Your task to perform on an android device: open chrome and create a bookmark for the current page Image 0: 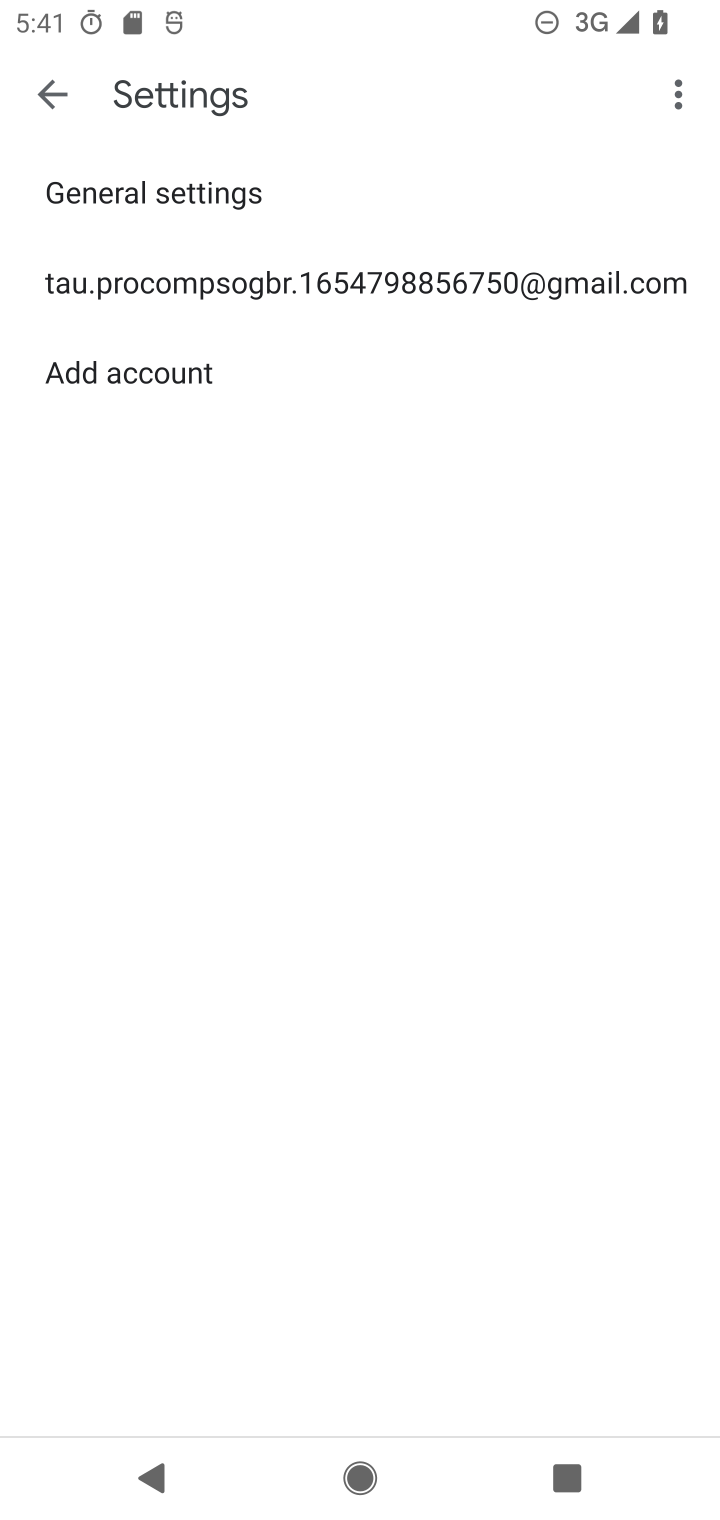
Step 0: press back button
Your task to perform on an android device: open chrome and create a bookmark for the current page Image 1: 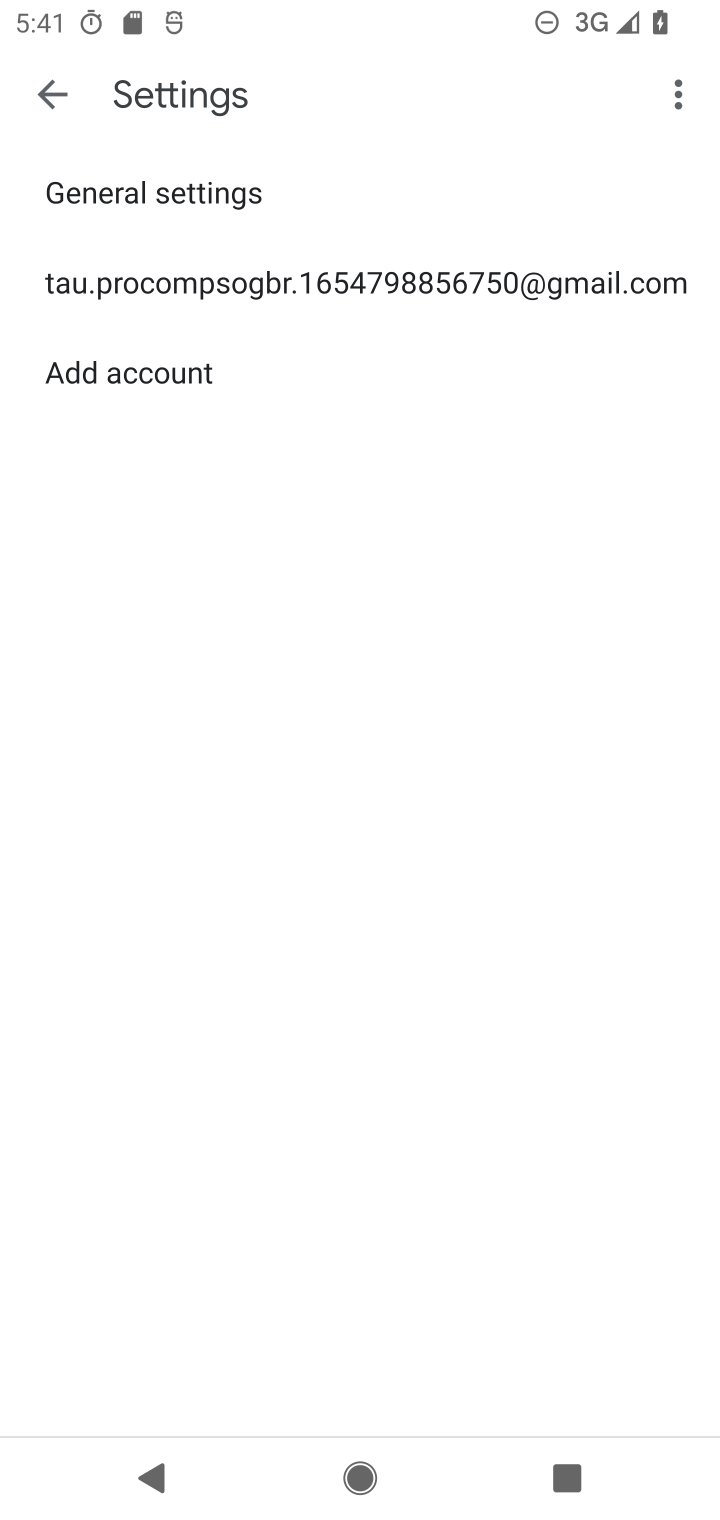
Step 1: press back button
Your task to perform on an android device: open chrome and create a bookmark for the current page Image 2: 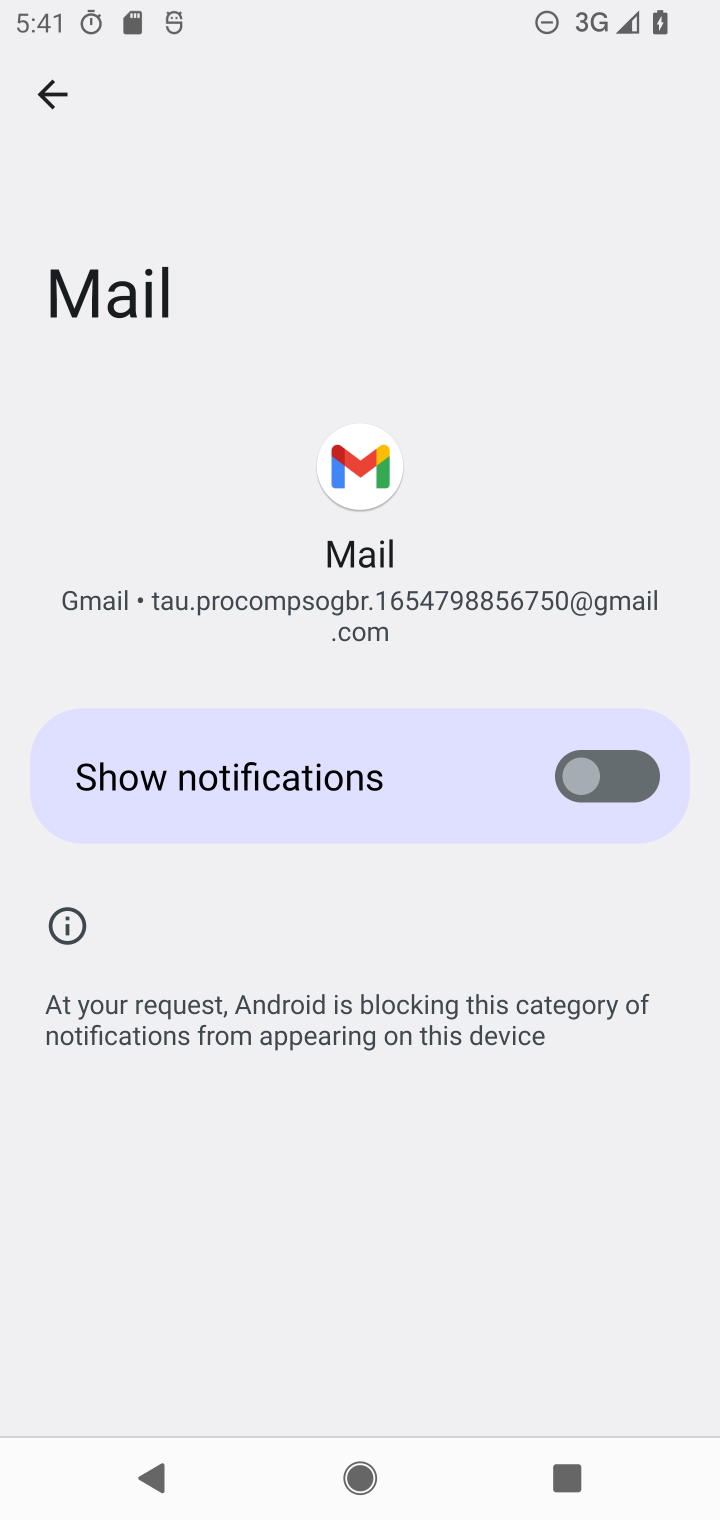
Step 2: press back button
Your task to perform on an android device: open chrome and create a bookmark for the current page Image 3: 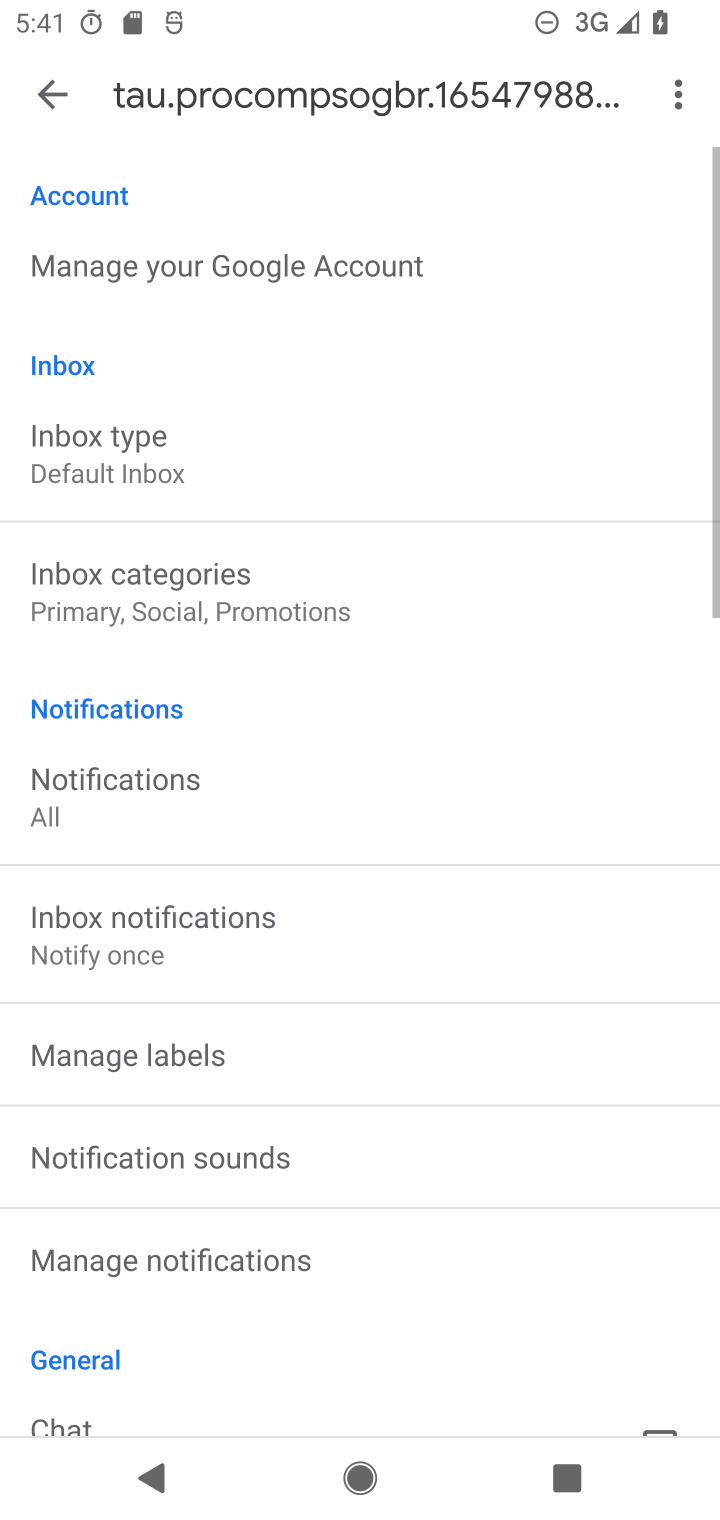
Step 3: press back button
Your task to perform on an android device: open chrome and create a bookmark for the current page Image 4: 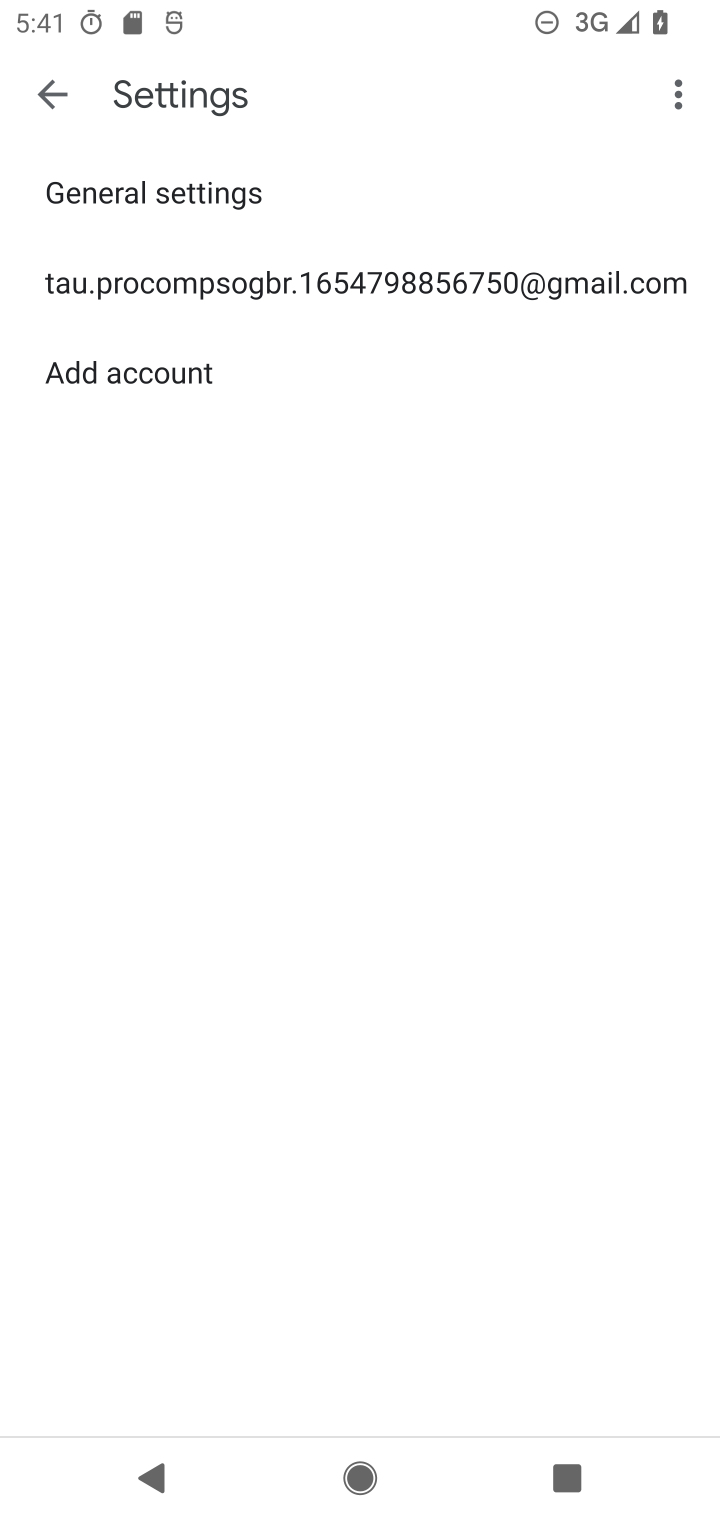
Step 4: press back button
Your task to perform on an android device: open chrome and create a bookmark for the current page Image 5: 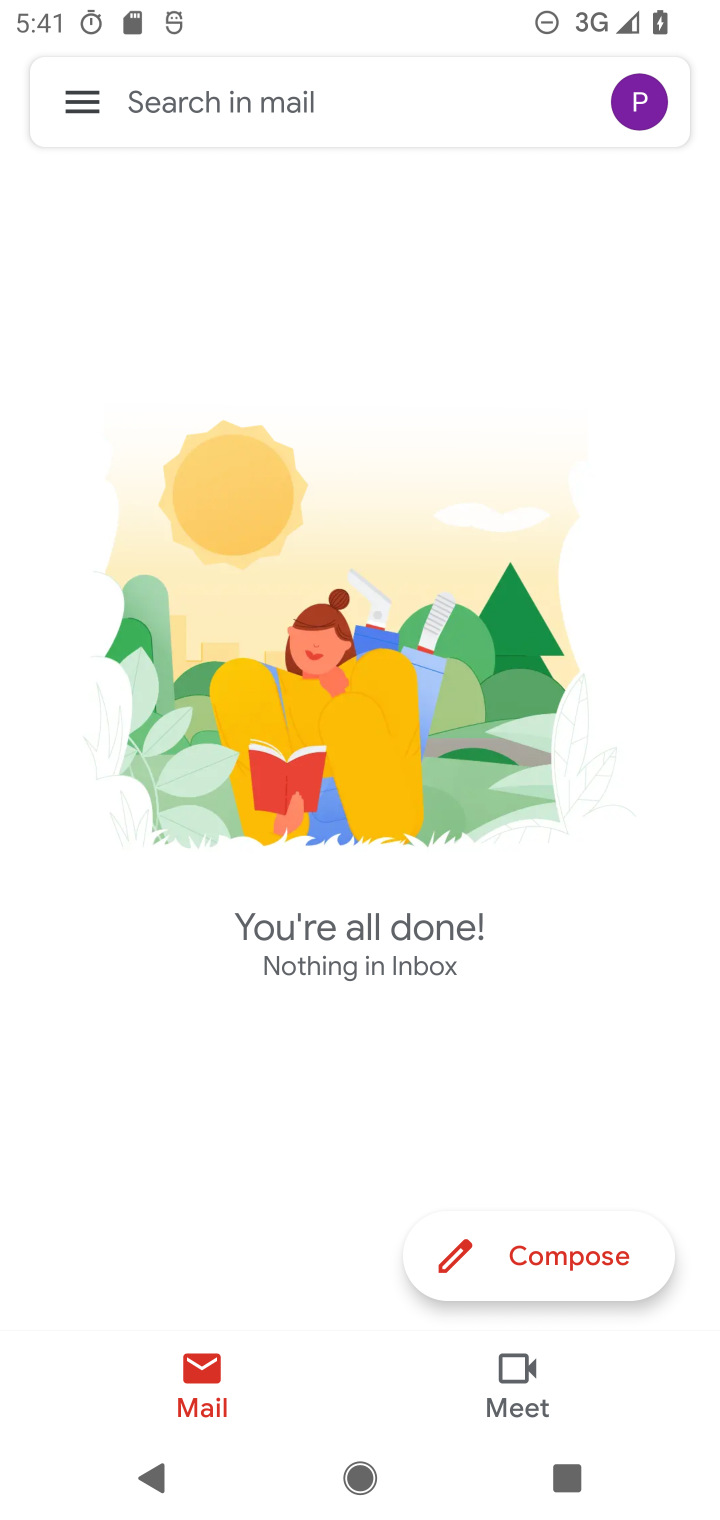
Step 5: press back button
Your task to perform on an android device: open chrome and create a bookmark for the current page Image 6: 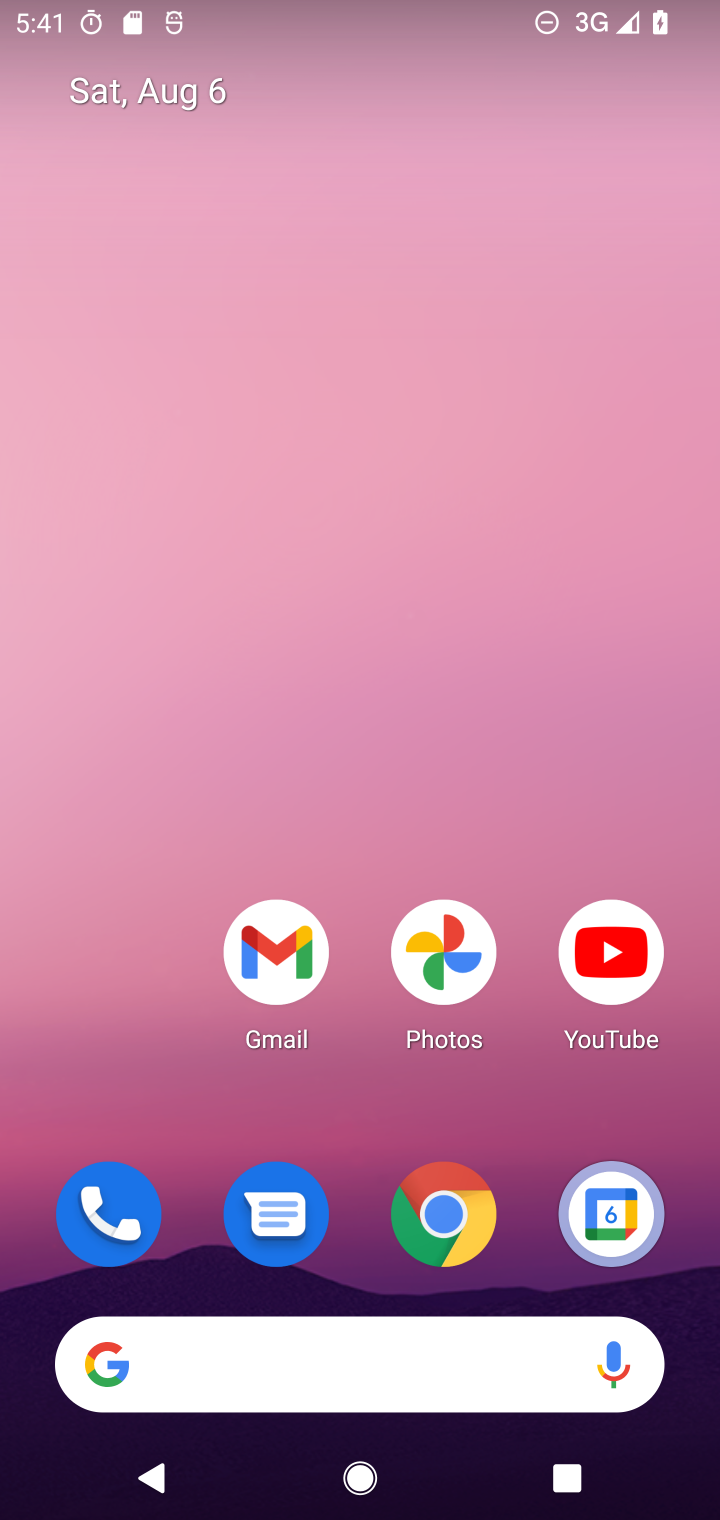
Step 6: click (442, 1225)
Your task to perform on an android device: open chrome and create a bookmark for the current page Image 7: 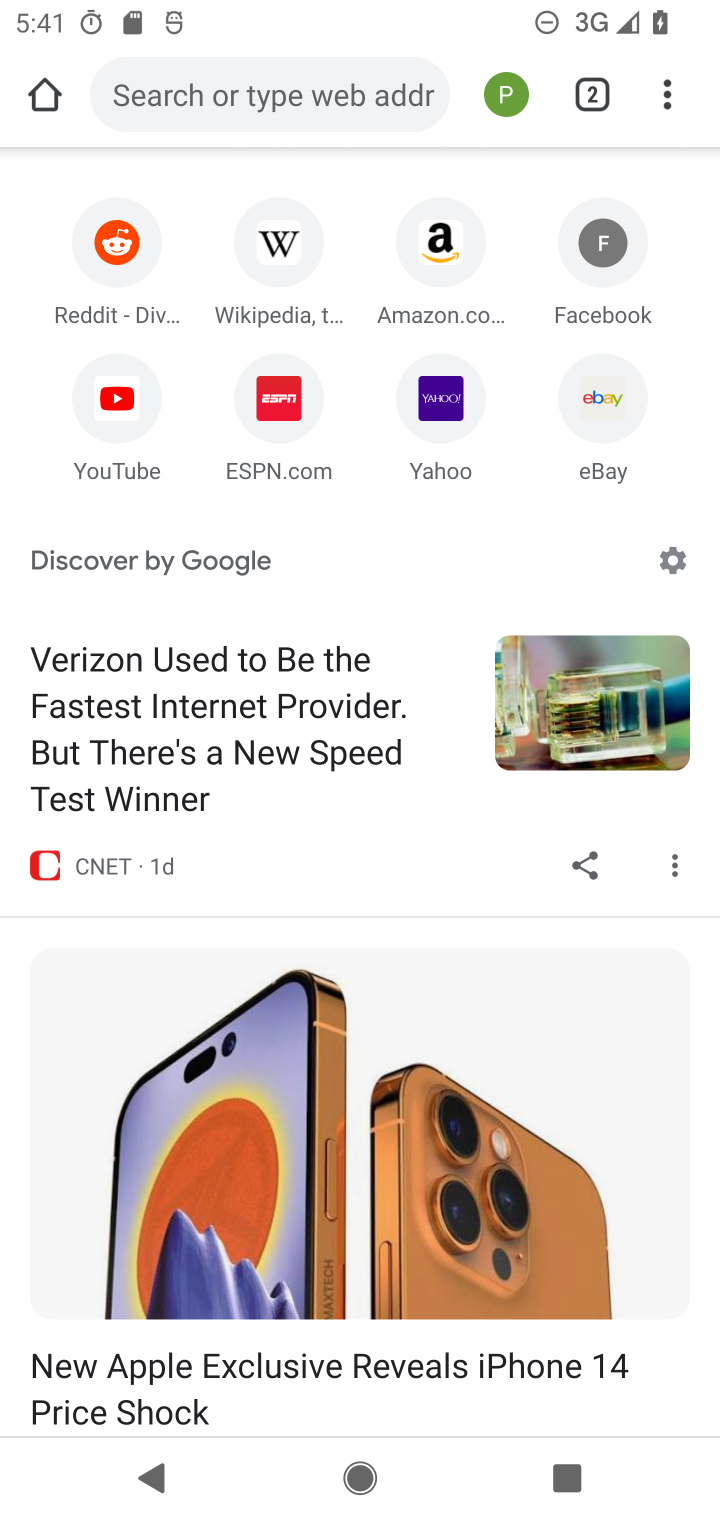
Step 7: click (661, 106)
Your task to perform on an android device: open chrome and create a bookmark for the current page Image 8: 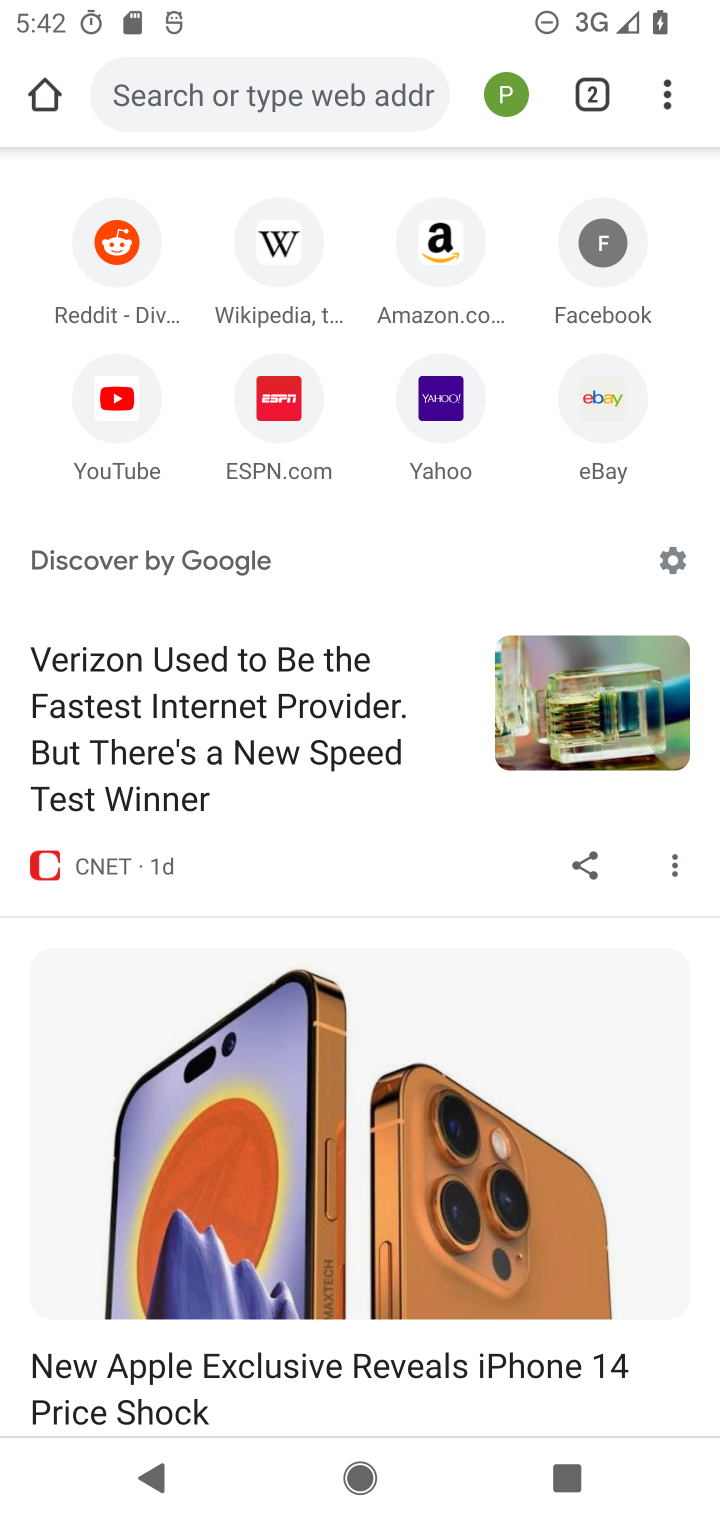
Step 8: click (666, 99)
Your task to perform on an android device: open chrome and create a bookmark for the current page Image 9: 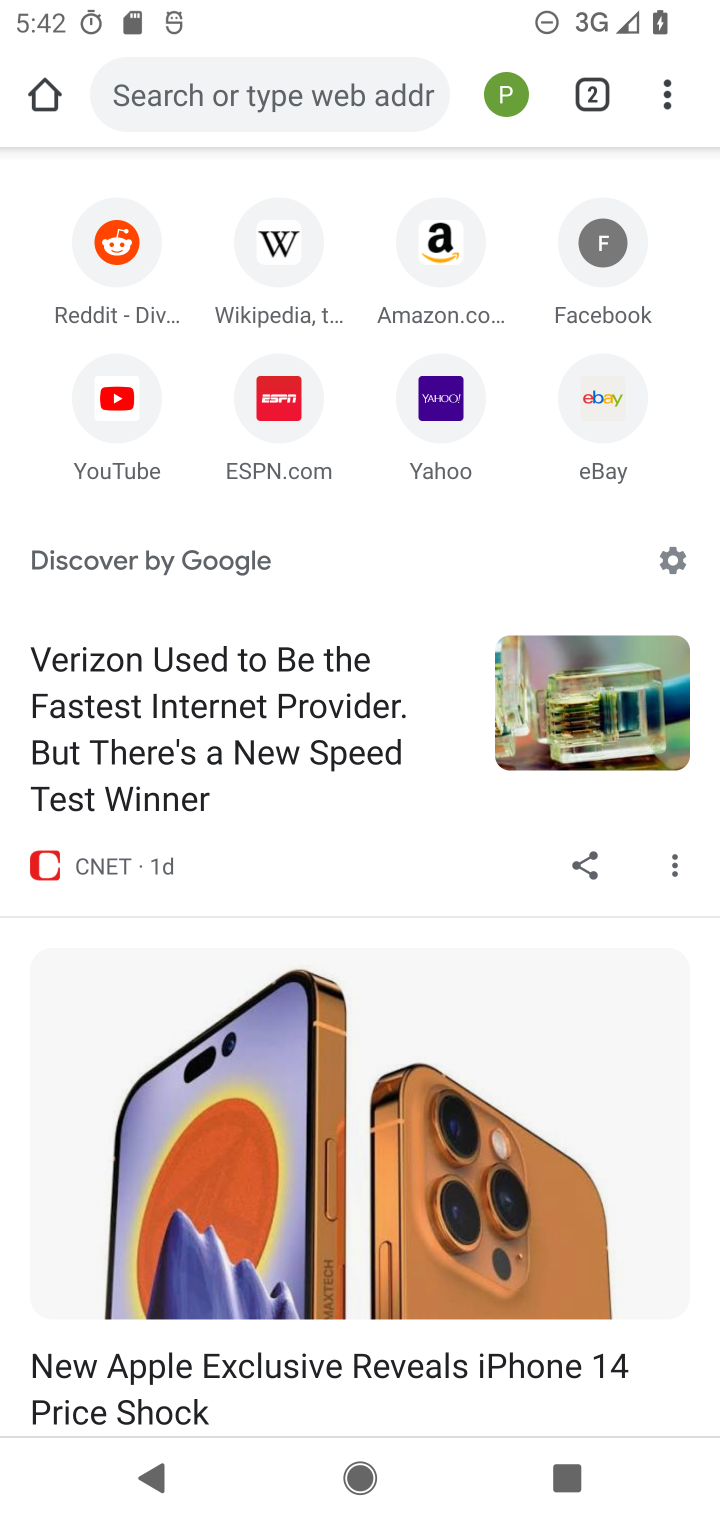
Step 9: click (666, 99)
Your task to perform on an android device: open chrome and create a bookmark for the current page Image 10: 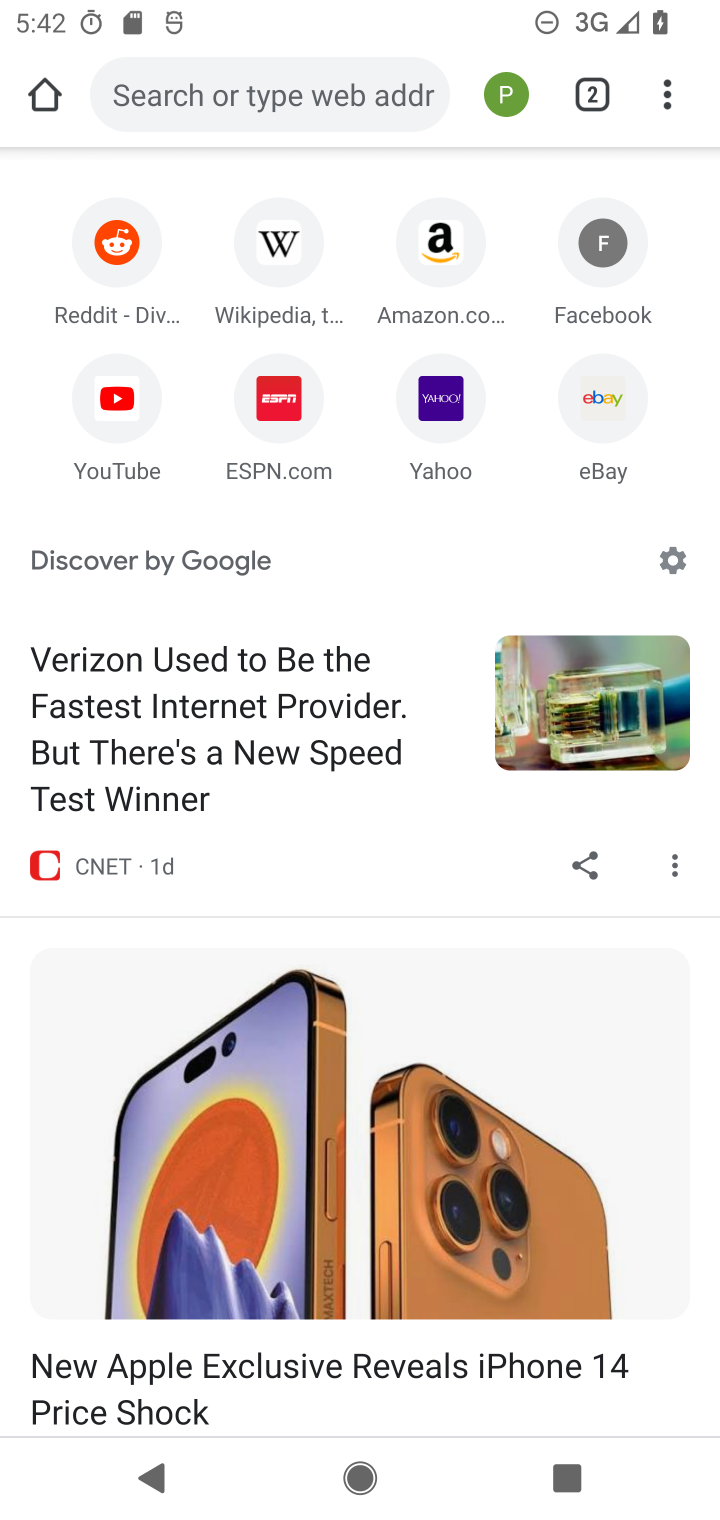
Step 10: click (664, 99)
Your task to perform on an android device: open chrome and create a bookmark for the current page Image 11: 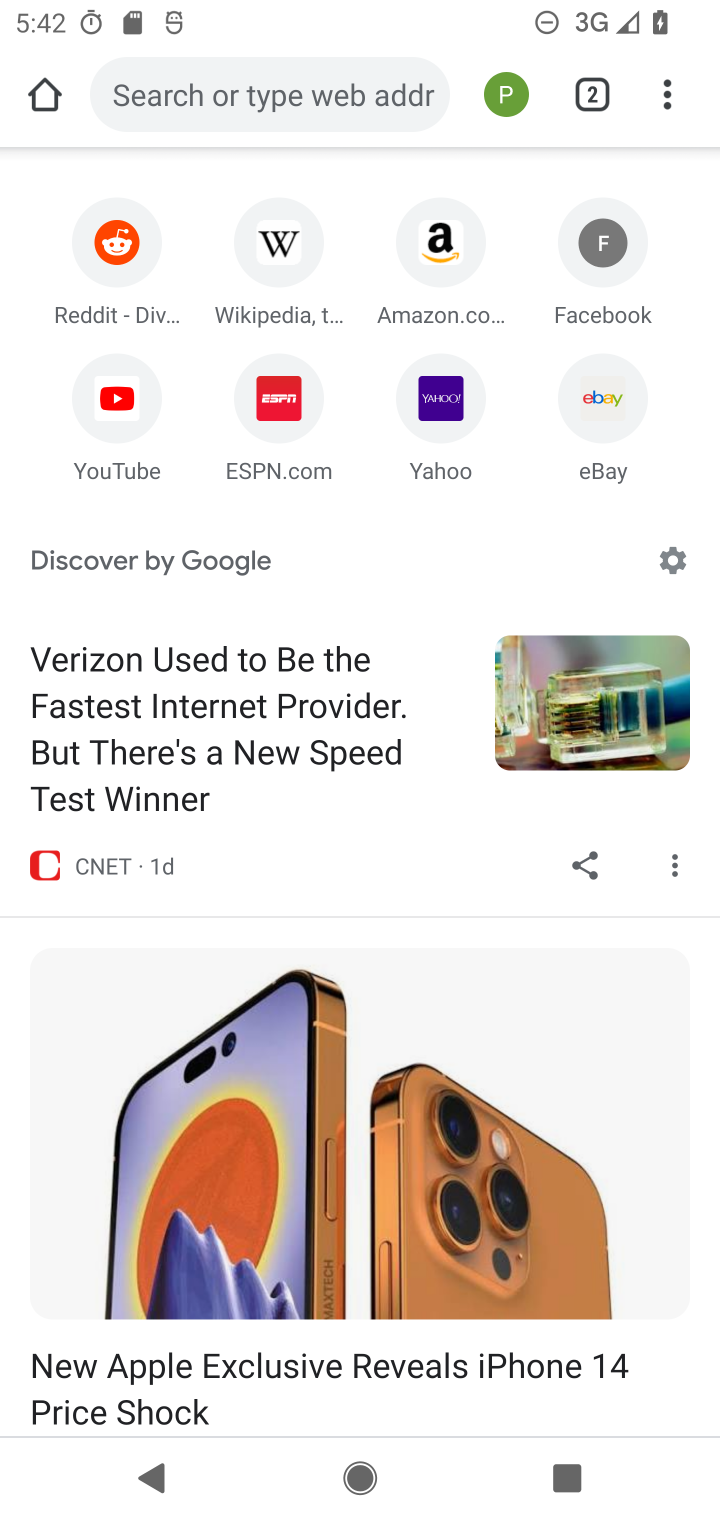
Step 11: click (664, 99)
Your task to perform on an android device: open chrome and create a bookmark for the current page Image 12: 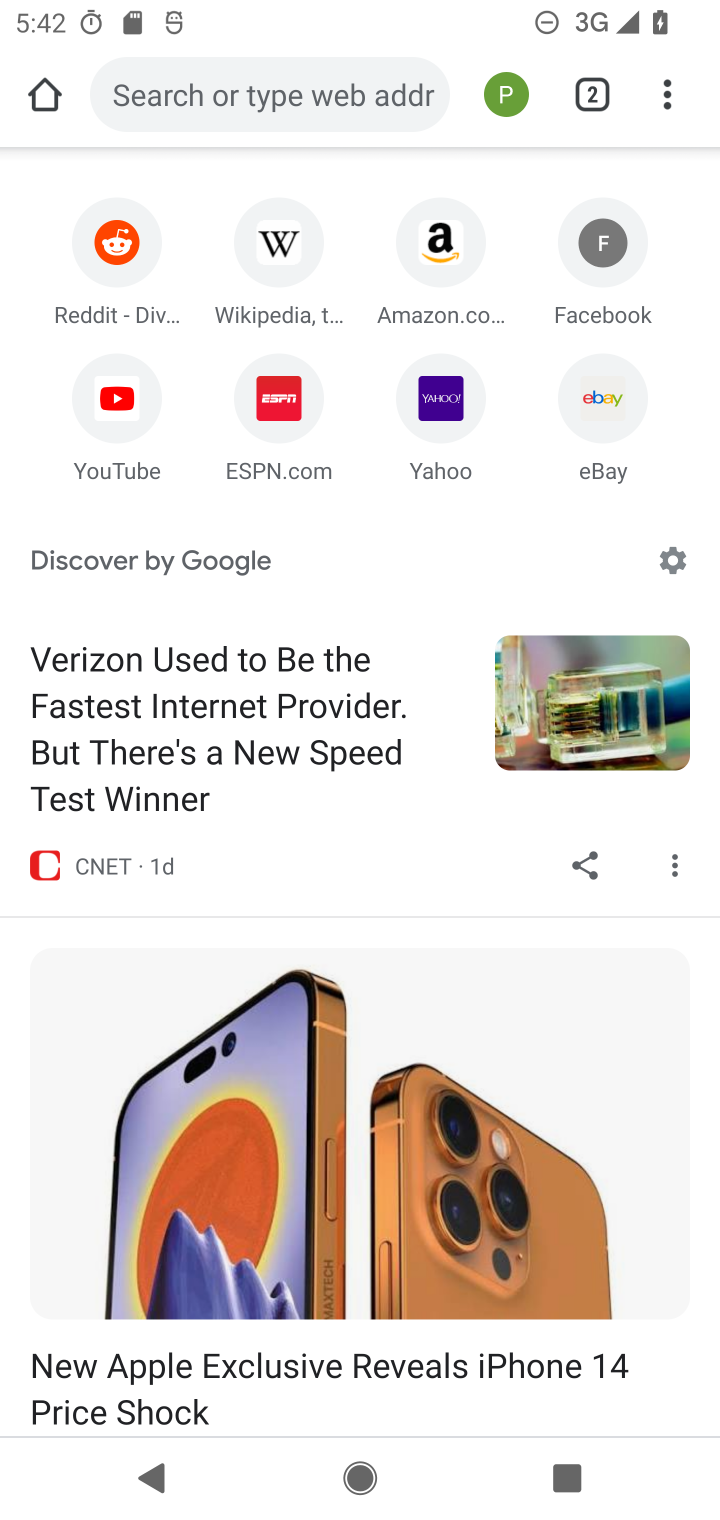
Step 12: click (664, 99)
Your task to perform on an android device: open chrome and create a bookmark for the current page Image 13: 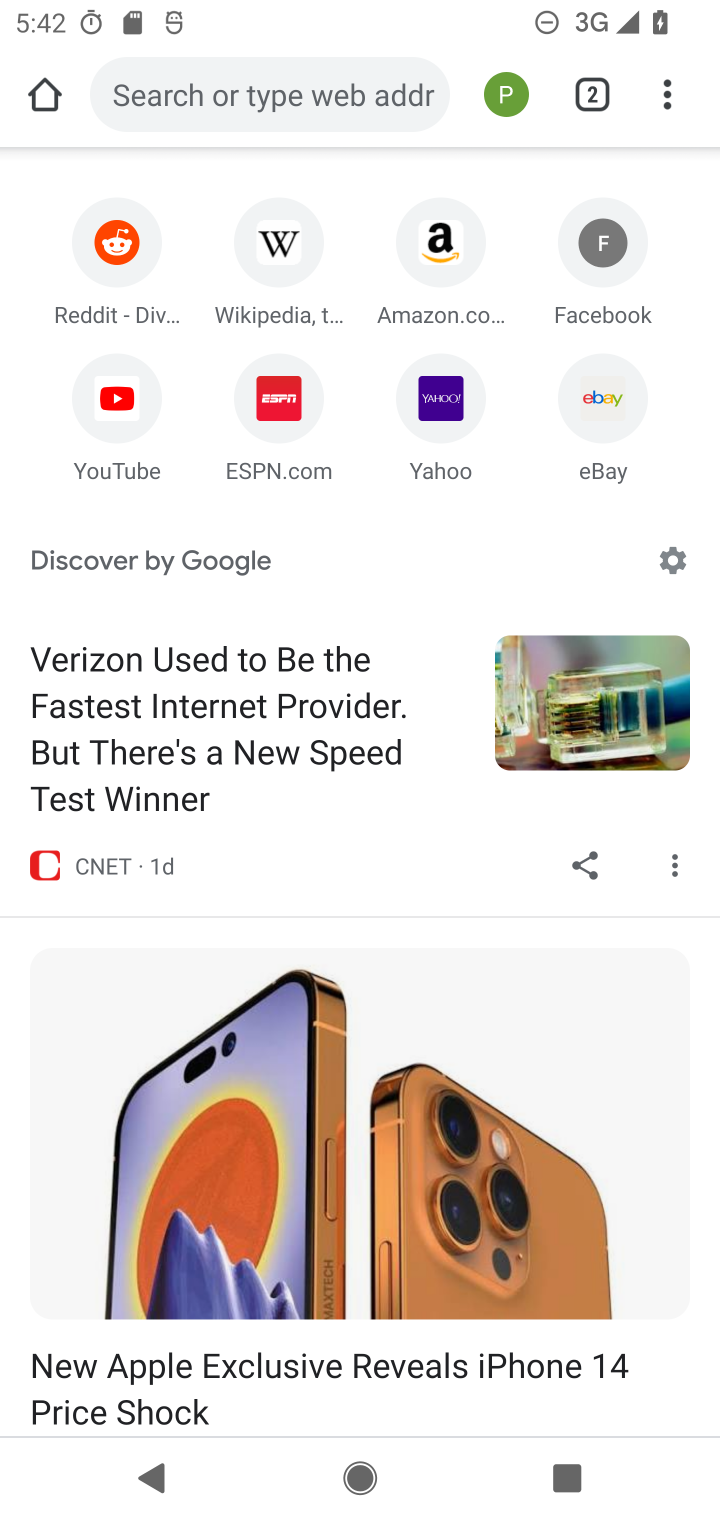
Step 13: click (675, 99)
Your task to perform on an android device: open chrome and create a bookmark for the current page Image 14: 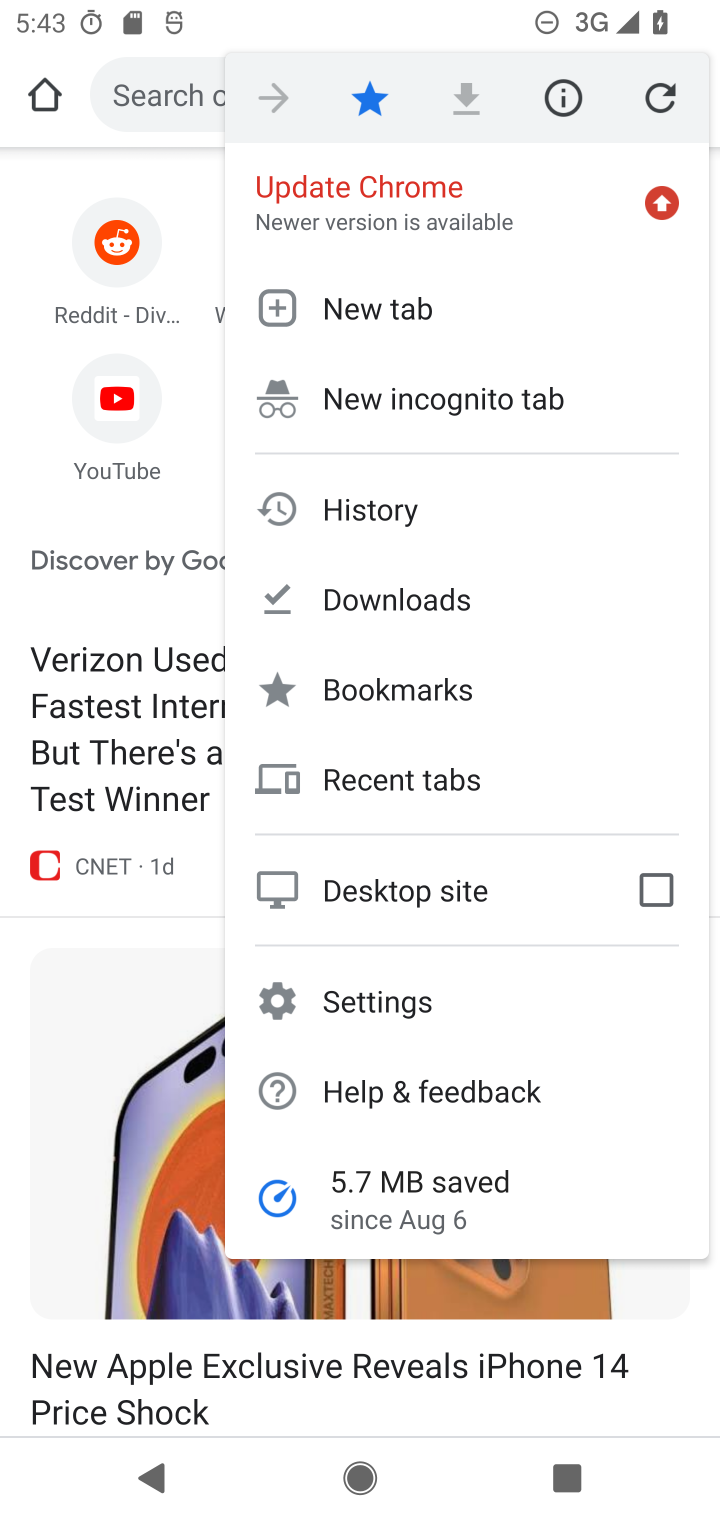
Step 14: task complete